Your task to perform on an android device: Set an alarm for 11am Image 0: 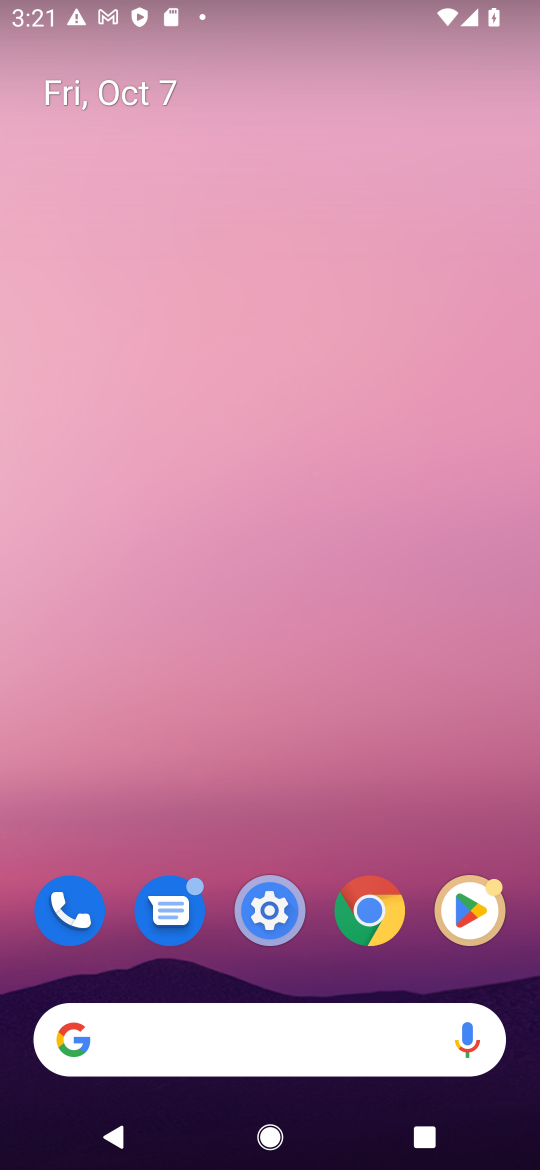
Step 0: click (235, 1063)
Your task to perform on an android device: Set an alarm for 11am Image 1: 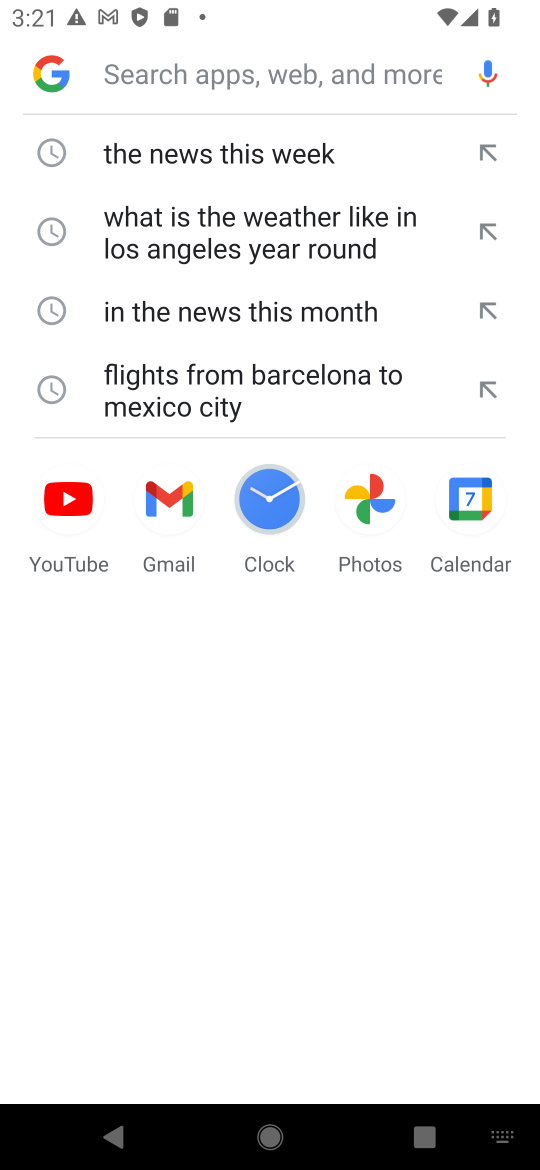
Step 1: press home button
Your task to perform on an android device: Set an alarm for 11am Image 2: 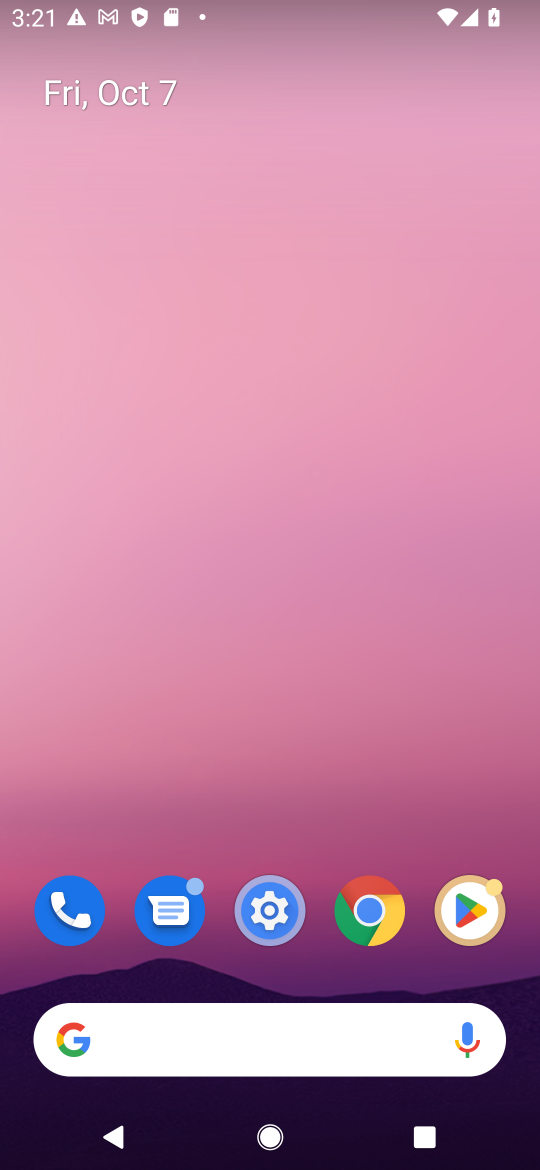
Step 2: drag from (279, 790) to (329, 0)
Your task to perform on an android device: Set an alarm for 11am Image 3: 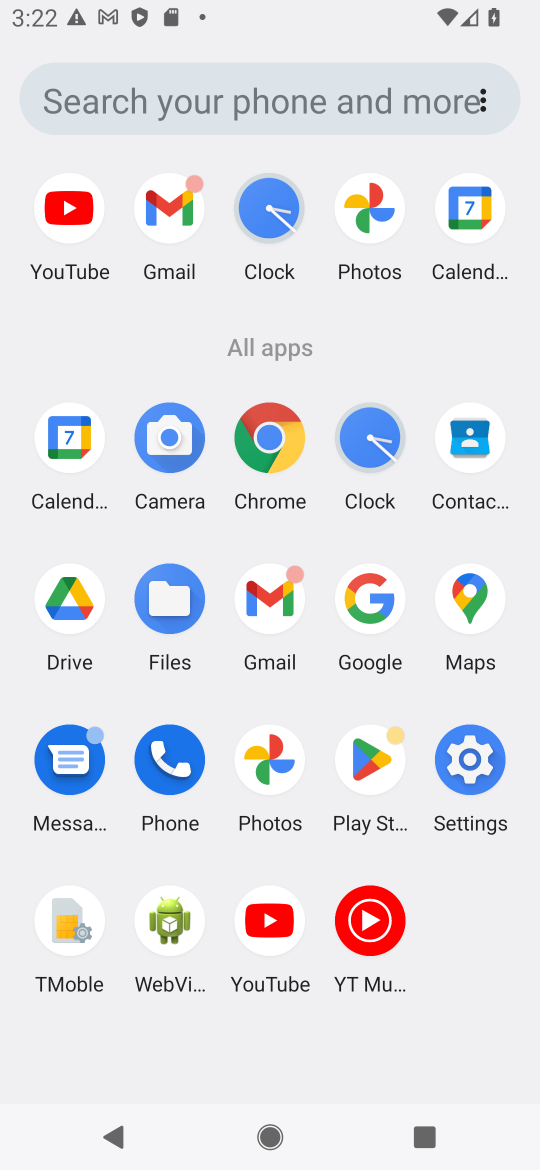
Step 3: click (374, 423)
Your task to perform on an android device: Set an alarm for 11am Image 4: 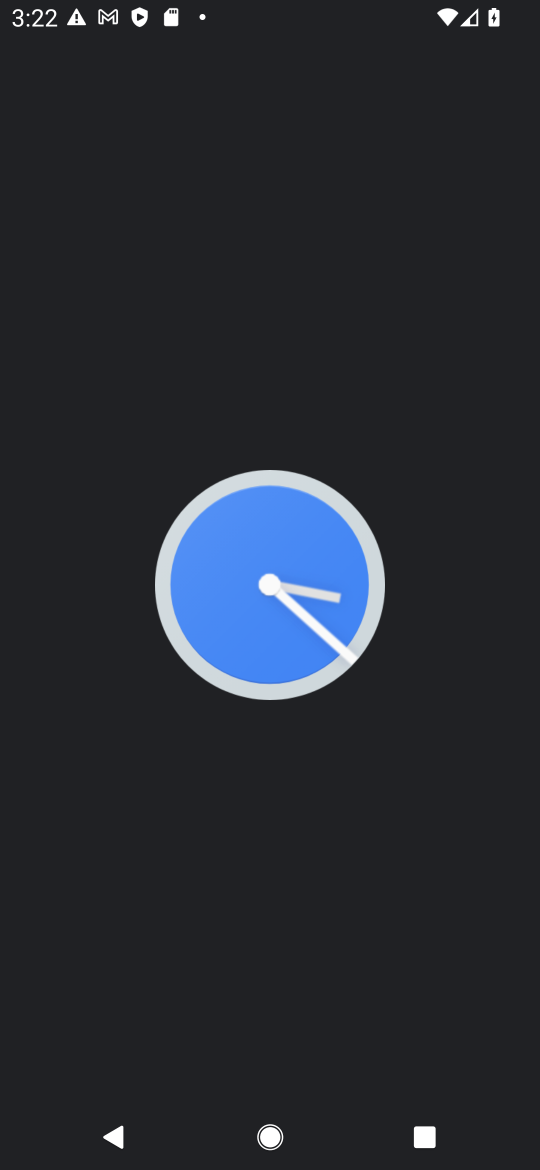
Step 4: click (374, 452)
Your task to perform on an android device: Set an alarm for 11am Image 5: 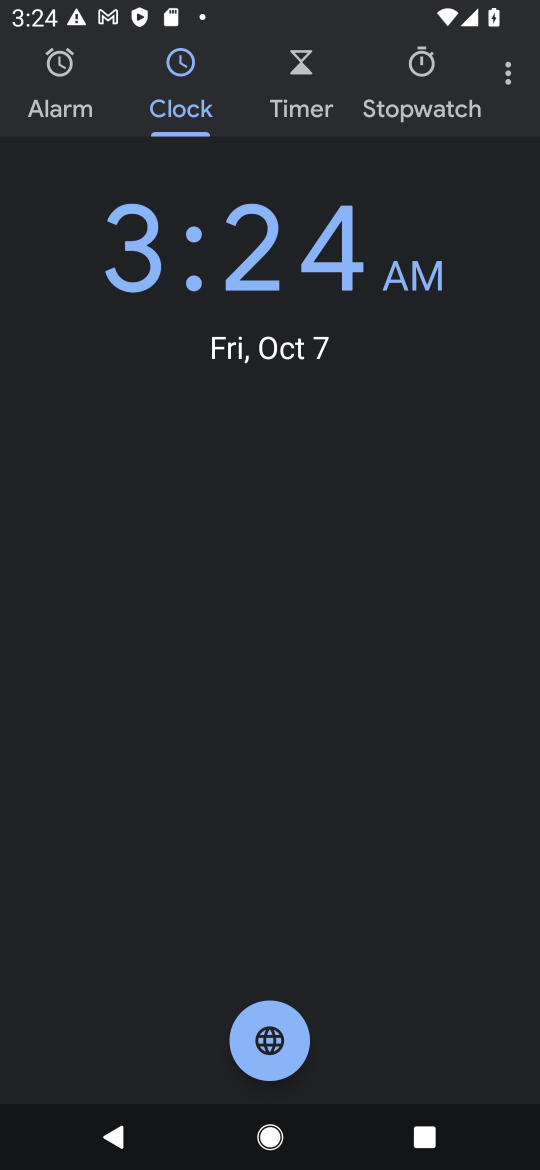
Step 5: click (56, 89)
Your task to perform on an android device: Set an alarm for 11am Image 6: 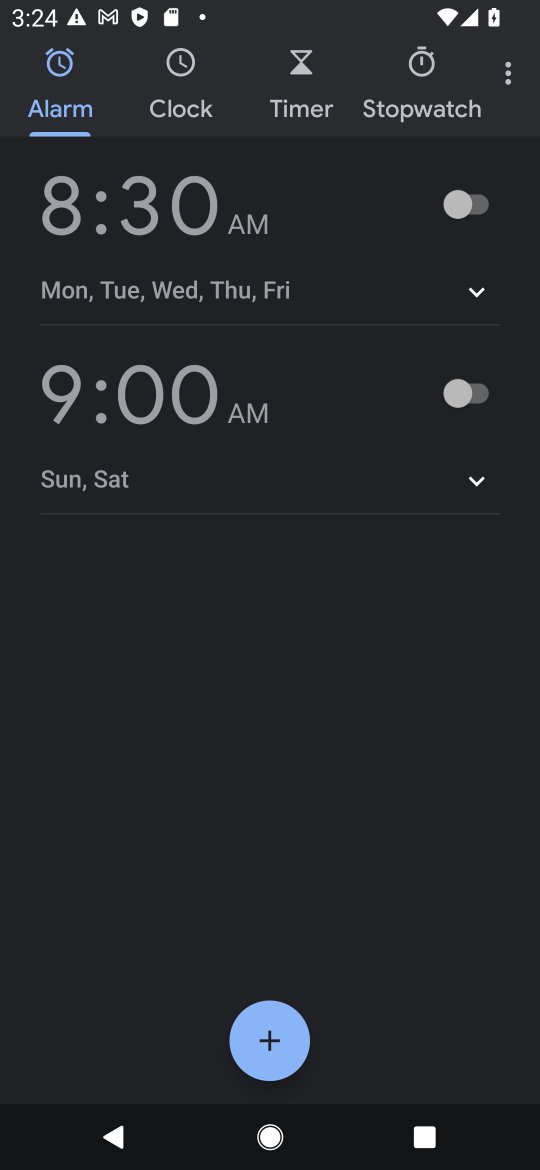
Step 6: click (490, 210)
Your task to perform on an android device: Set an alarm for 11am Image 7: 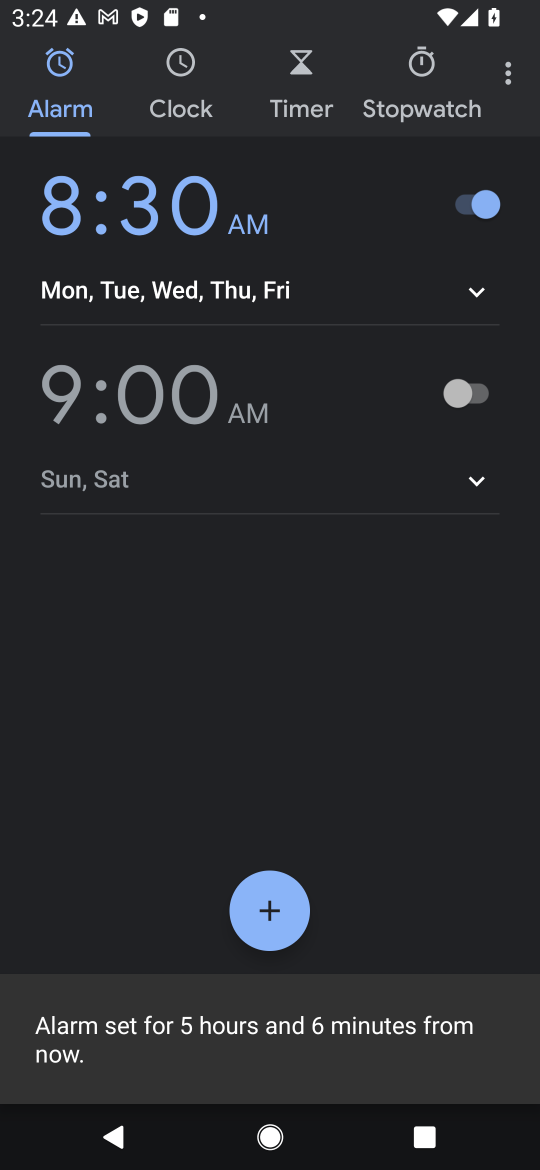
Step 7: task complete